Your task to perform on an android device: Open the Play Movies app and select the watchlist tab. Image 0: 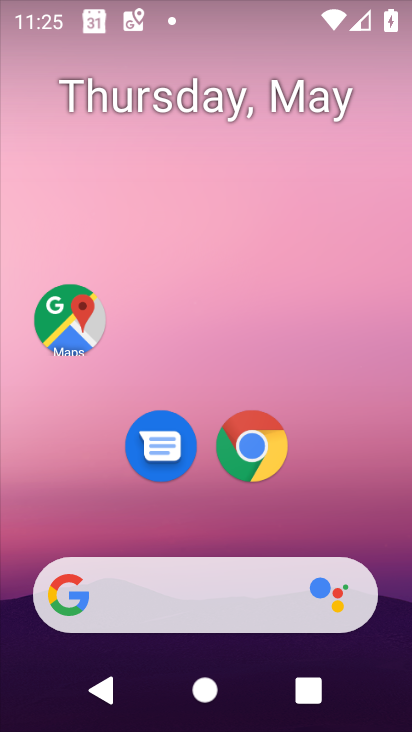
Step 0: drag from (244, 602) to (261, 0)
Your task to perform on an android device: Open the Play Movies app and select the watchlist tab. Image 1: 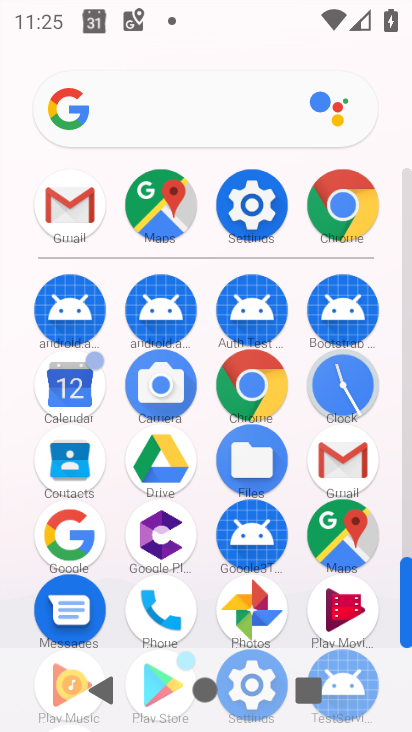
Step 1: click (340, 616)
Your task to perform on an android device: Open the Play Movies app and select the watchlist tab. Image 2: 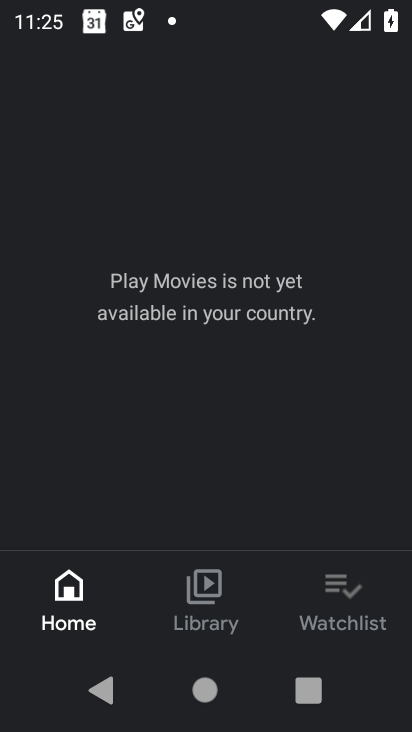
Step 2: click (349, 605)
Your task to perform on an android device: Open the Play Movies app and select the watchlist tab. Image 3: 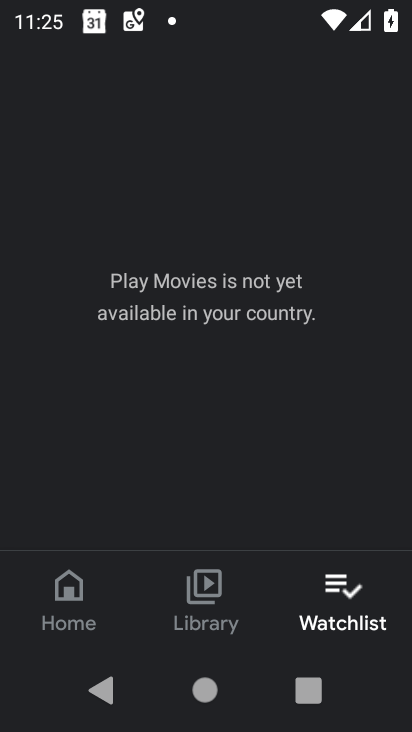
Step 3: task complete